Your task to perform on an android device: move an email to a new category in the gmail app Image 0: 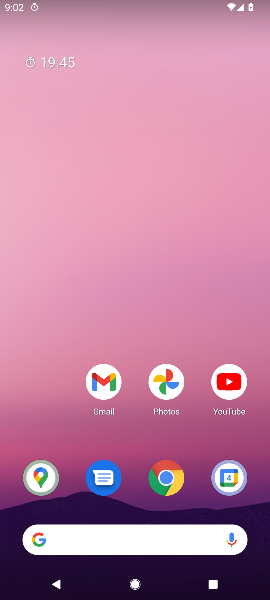
Step 0: click (145, 44)
Your task to perform on an android device: move an email to a new category in the gmail app Image 1: 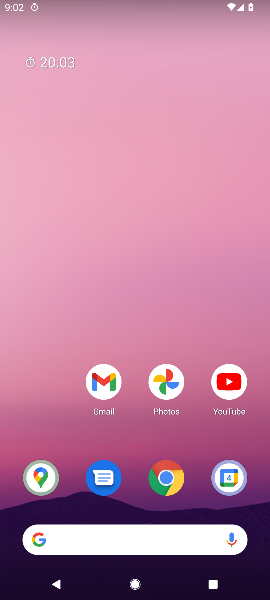
Step 1: drag from (157, 452) to (217, 78)
Your task to perform on an android device: move an email to a new category in the gmail app Image 2: 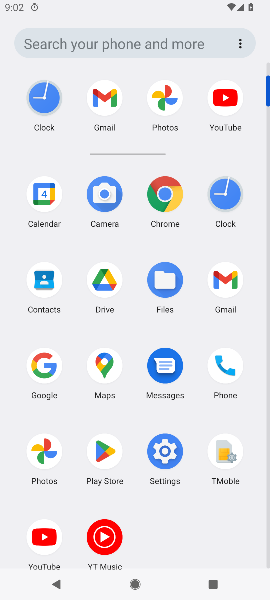
Step 2: click (220, 278)
Your task to perform on an android device: move an email to a new category in the gmail app Image 3: 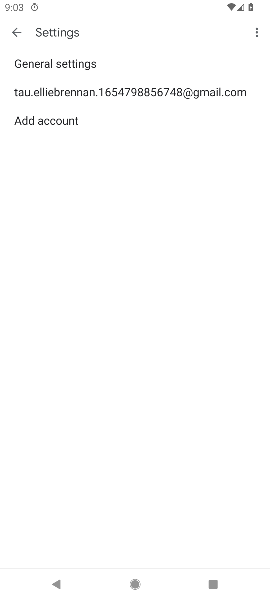
Step 3: click (24, 33)
Your task to perform on an android device: move an email to a new category in the gmail app Image 4: 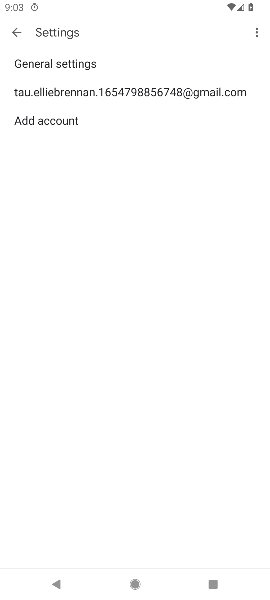
Step 4: click (11, 29)
Your task to perform on an android device: move an email to a new category in the gmail app Image 5: 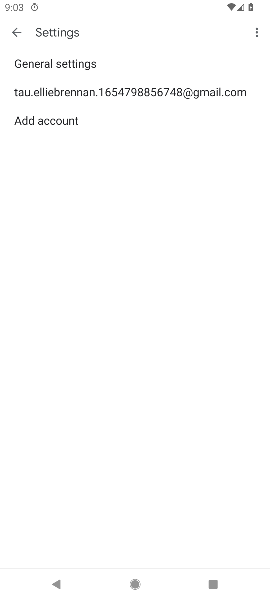
Step 5: task complete